Your task to perform on an android device: Open Youtube and go to the subscriptions tab Image 0: 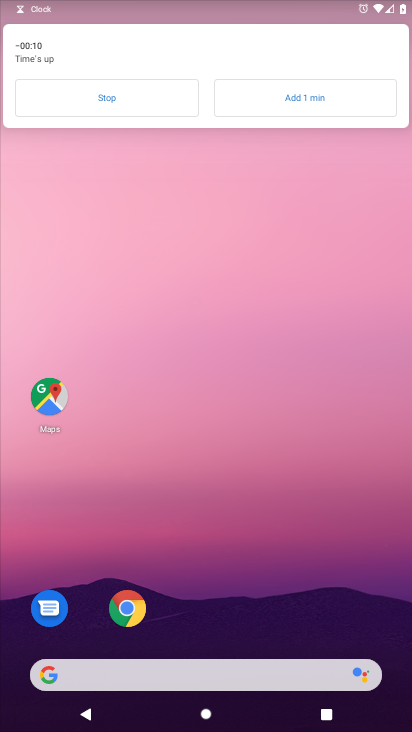
Step 0: click (141, 104)
Your task to perform on an android device: Open Youtube and go to the subscriptions tab Image 1: 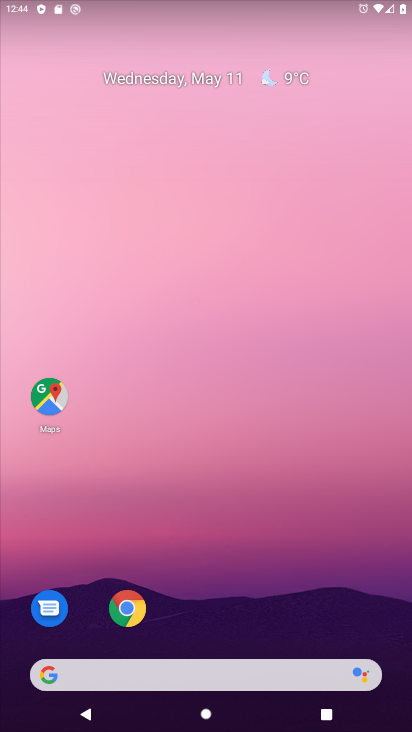
Step 1: drag from (239, 563) to (201, 54)
Your task to perform on an android device: Open Youtube and go to the subscriptions tab Image 2: 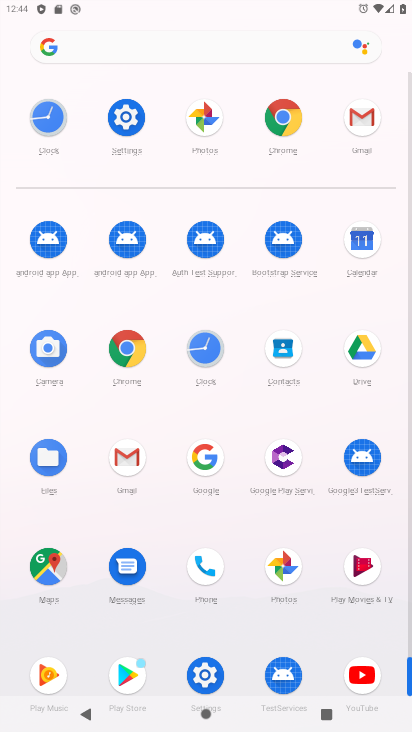
Step 2: click (366, 685)
Your task to perform on an android device: Open Youtube and go to the subscriptions tab Image 3: 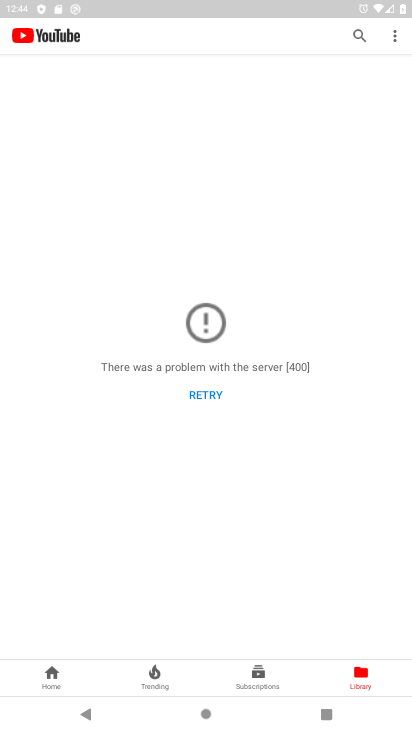
Step 3: task complete